Your task to perform on an android device: Search for the best 100% cotton t-shirts Image 0: 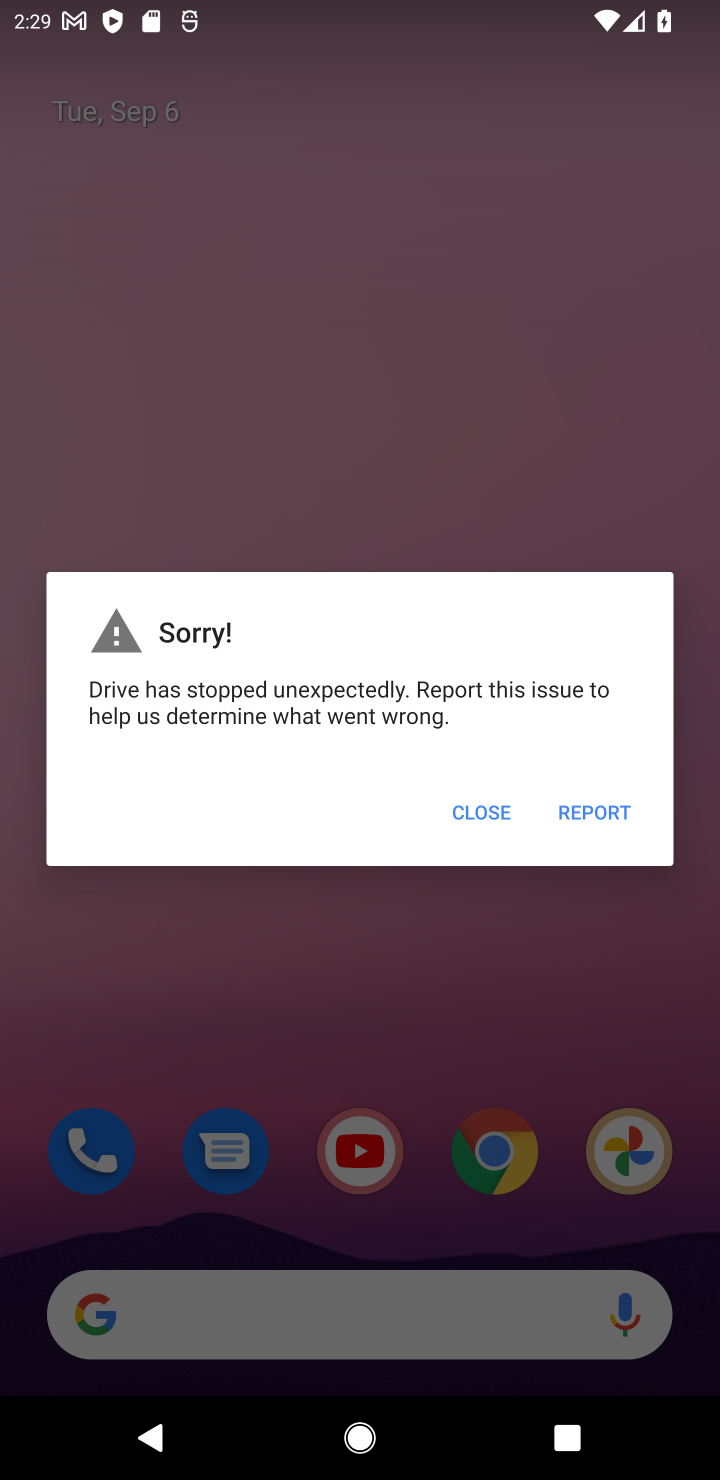
Step 0: click (475, 1137)
Your task to perform on an android device: Search for the best 100% cotton t-shirts Image 1: 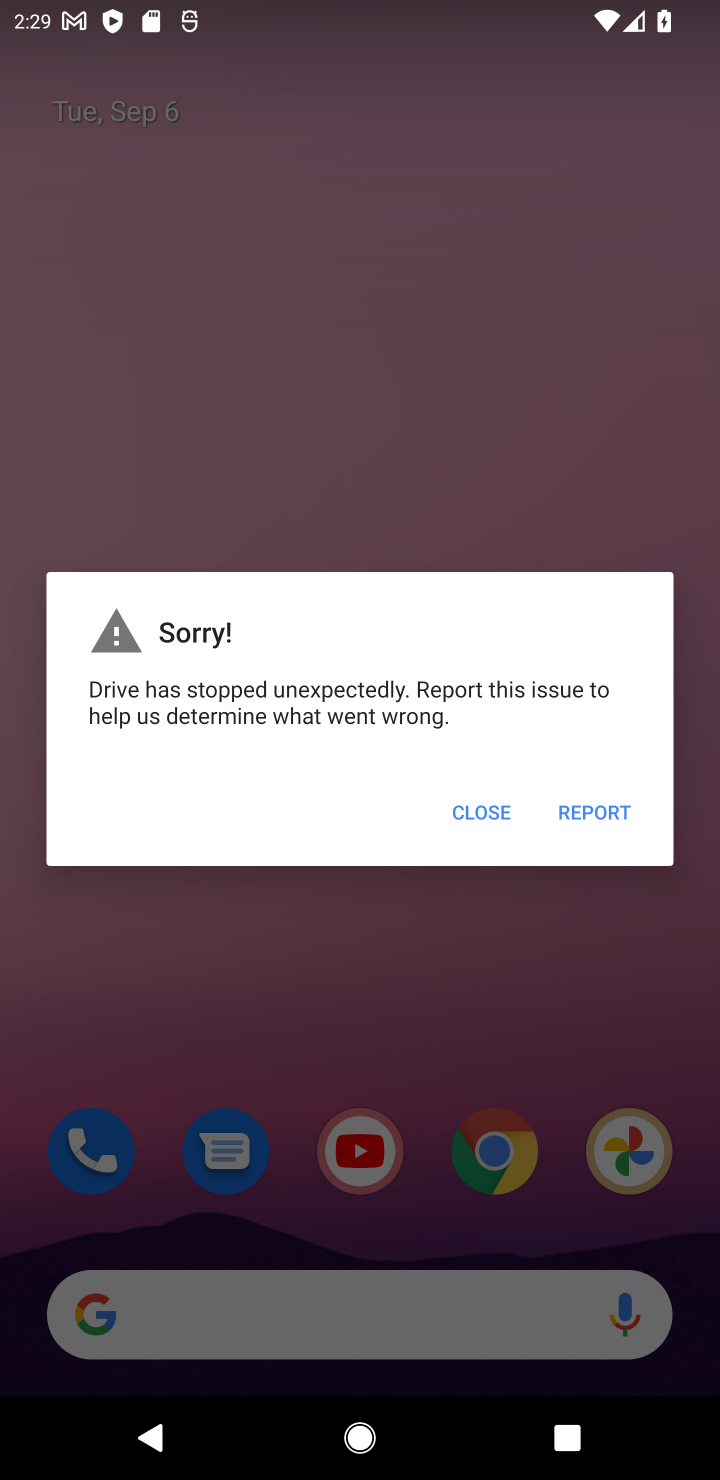
Step 1: click (475, 804)
Your task to perform on an android device: Search for the best 100% cotton t-shirts Image 2: 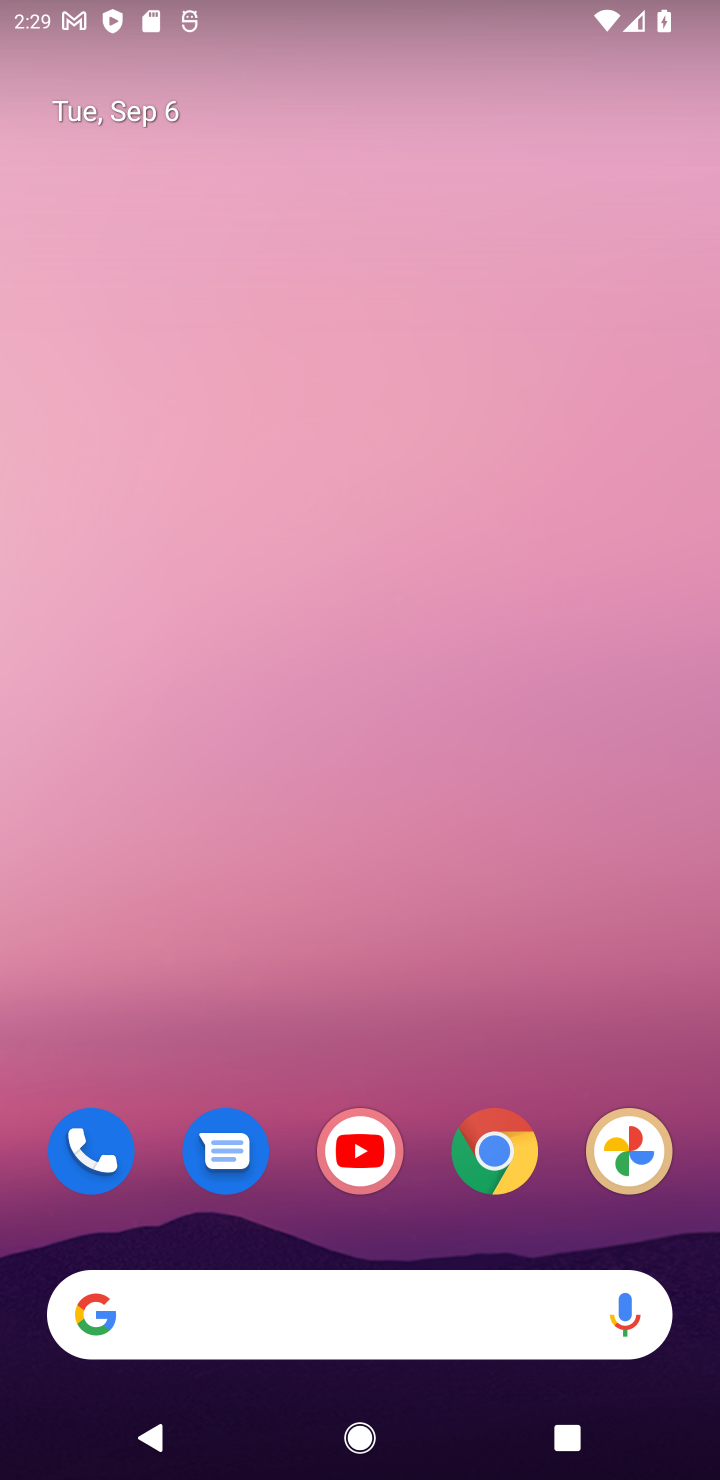
Step 2: click (501, 1164)
Your task to perform on an android device: Search for the best 100% cotton t-shirts Image 3: 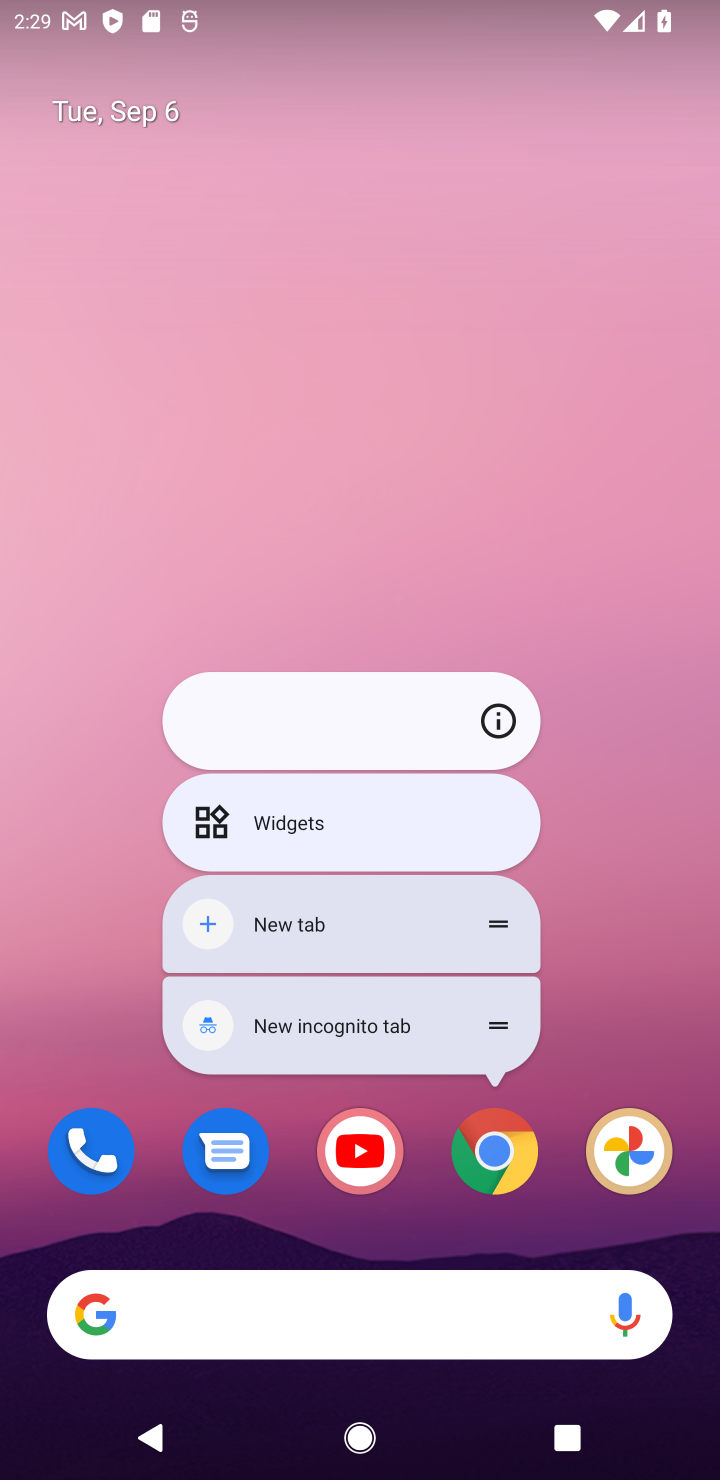
Step 3: click (501, 1164)
Your task to perform on an android device: Search for the best 100% cotton t-shirts Image 4: 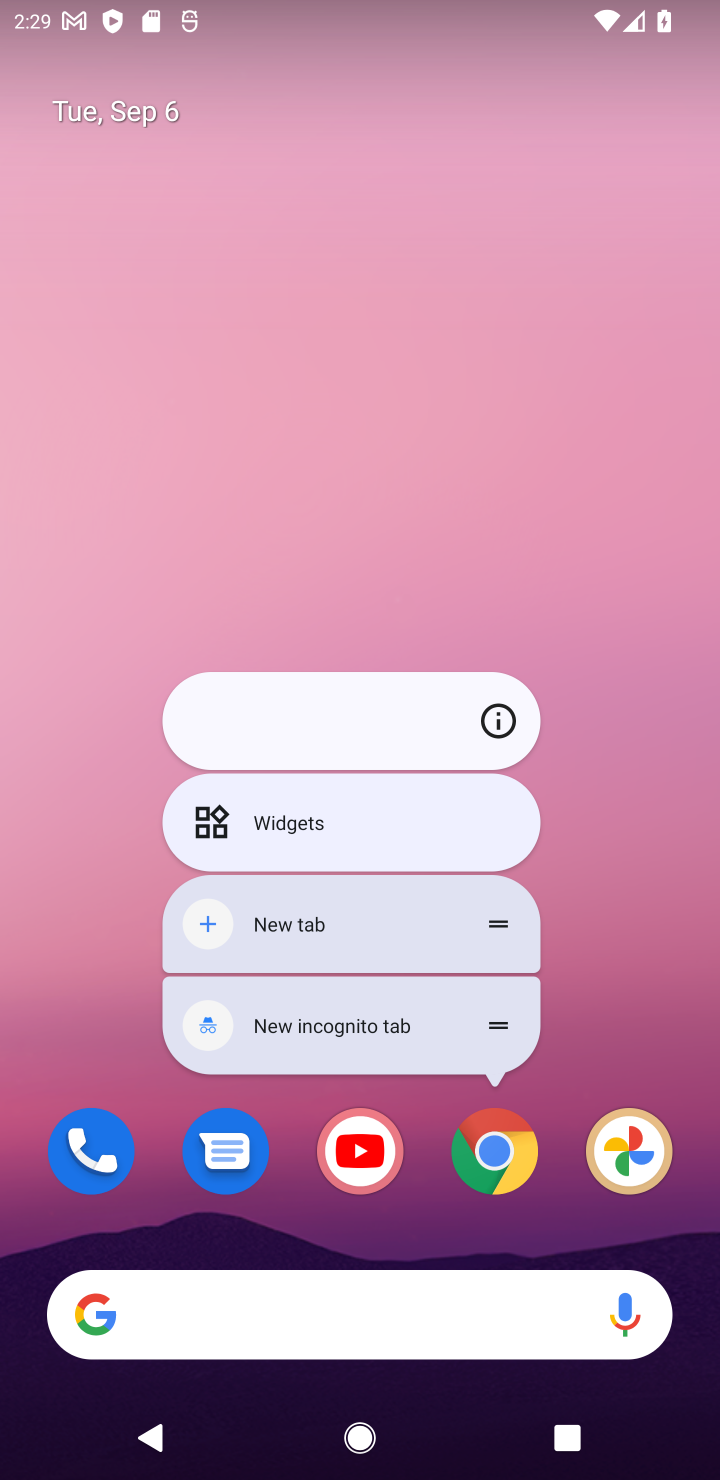
Step 4: drag from (643, 957) to (502, 1170)
Your task to perform on an android device: Search for the best 100% cotton t-shirts Image 5: 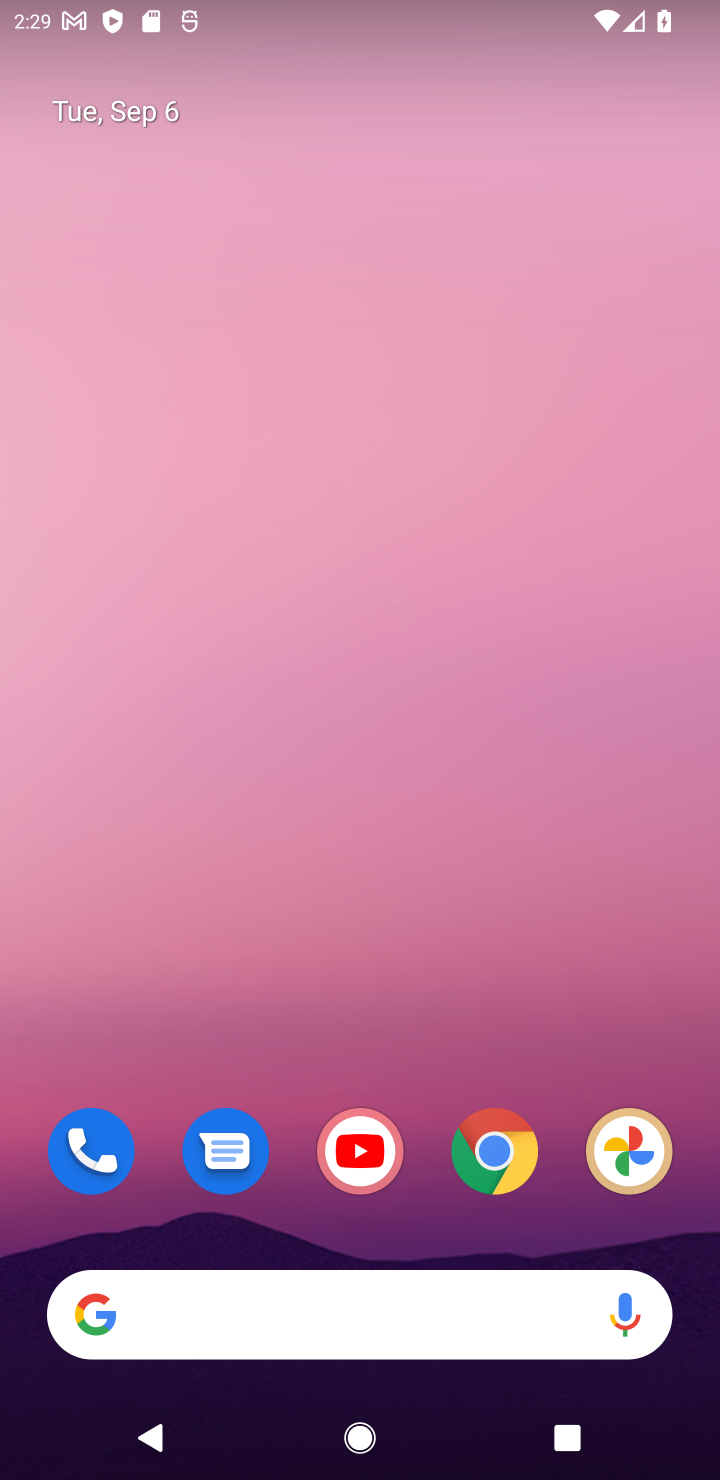
Step 5: click (504, 1152)
Your task to perform on an android device: Search for the best 100% cotton t-shirts Image 6: 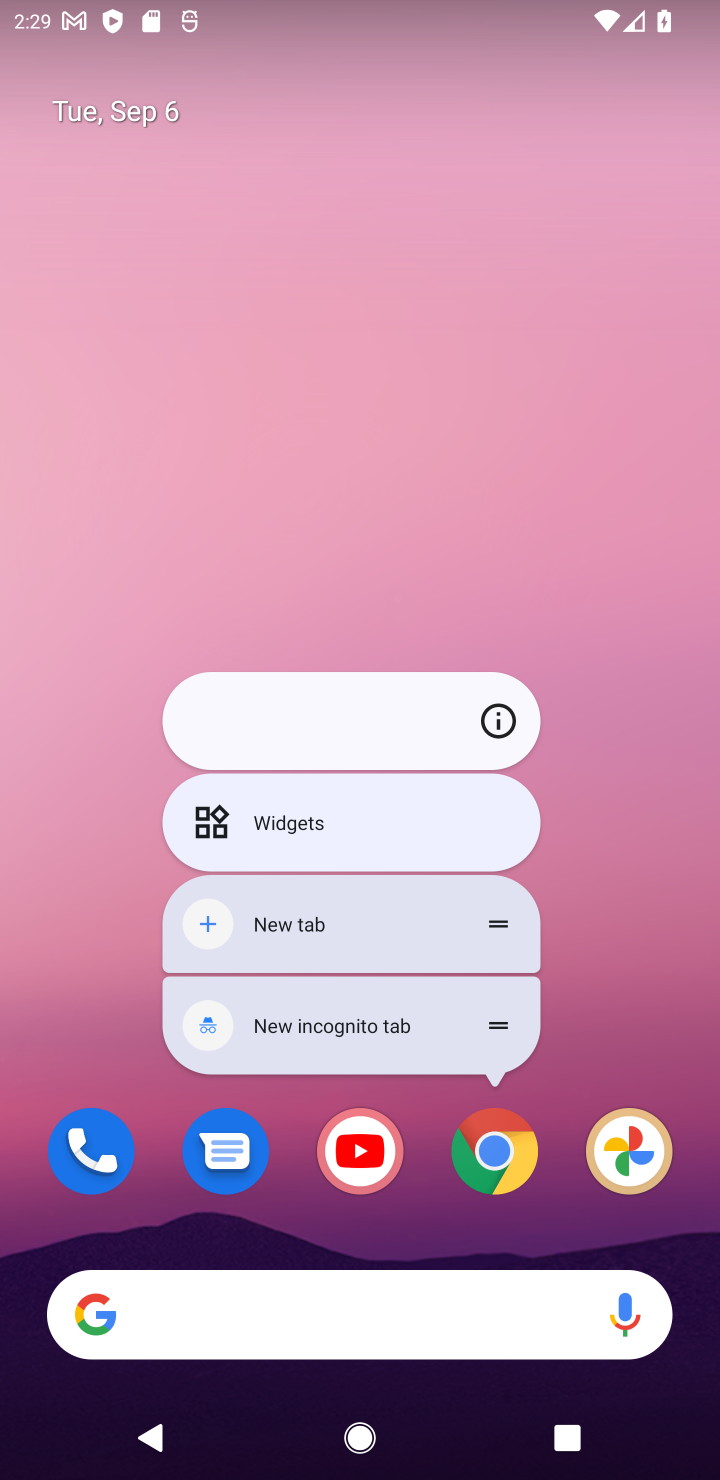
Step 6: click (203, 919)
Your task to perform on an android device: Search for the best 100% cotton t-shirts Image 7: 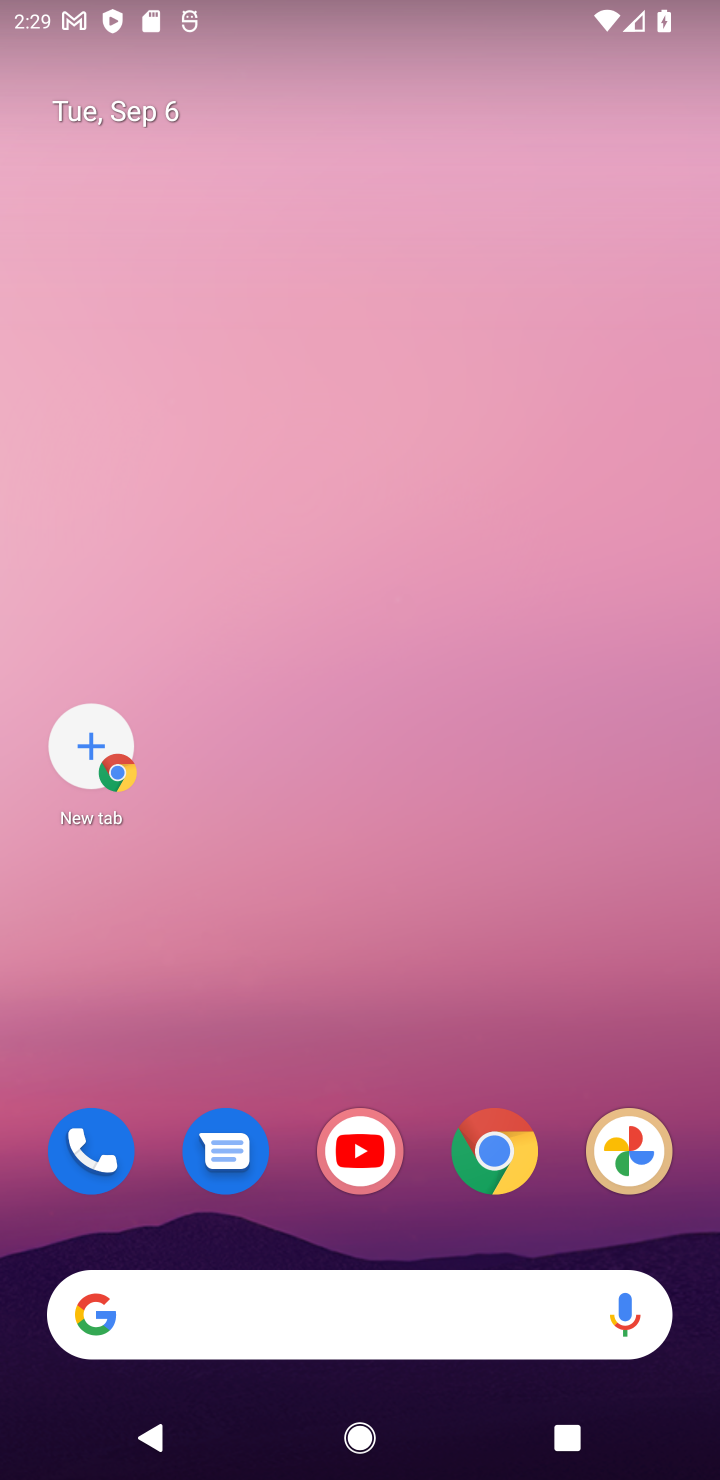
Step 7: click (488, 1153)
Your task to perform on an android device: Search for the best 100% cotton t-shirts Image 8: 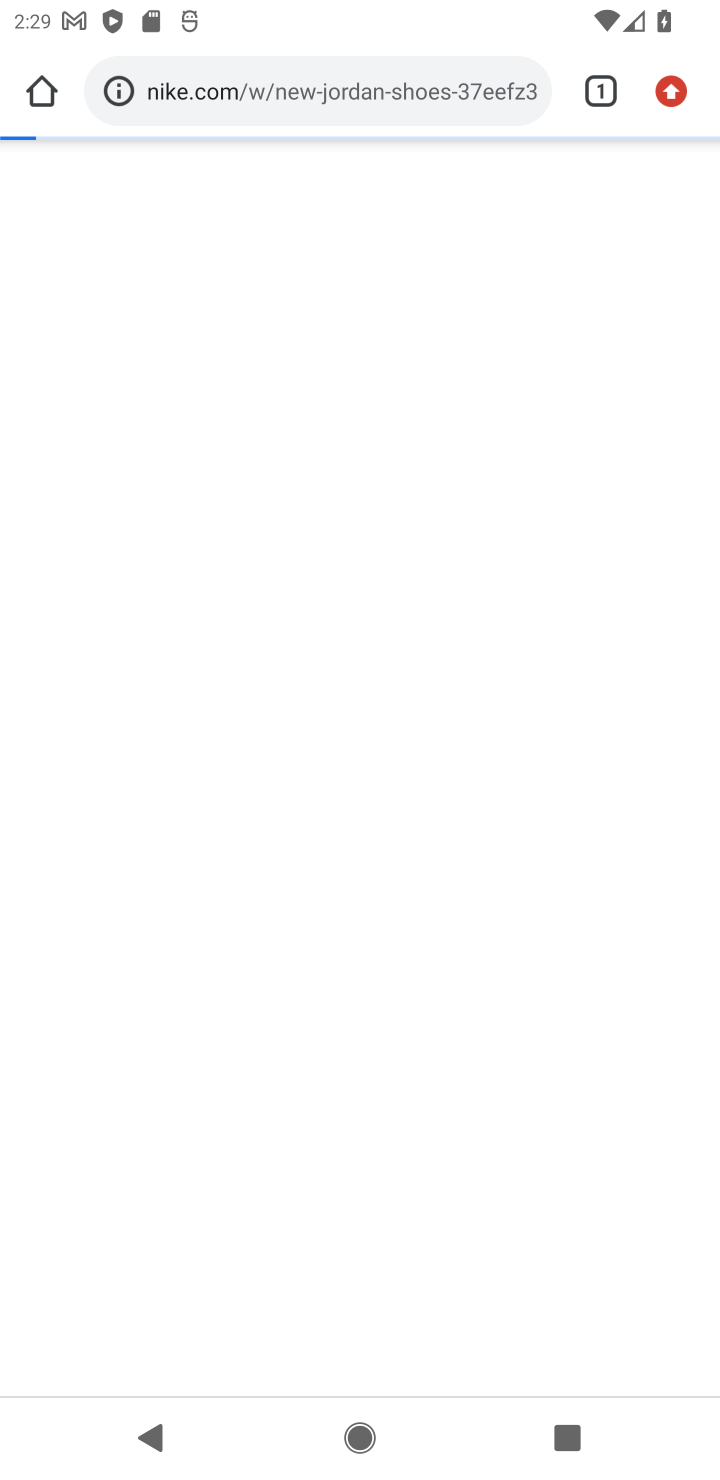
Step 8: click (175, 83)
Your task to perform on an android device: Search for the best 100% cotton t-shirts Image 9: 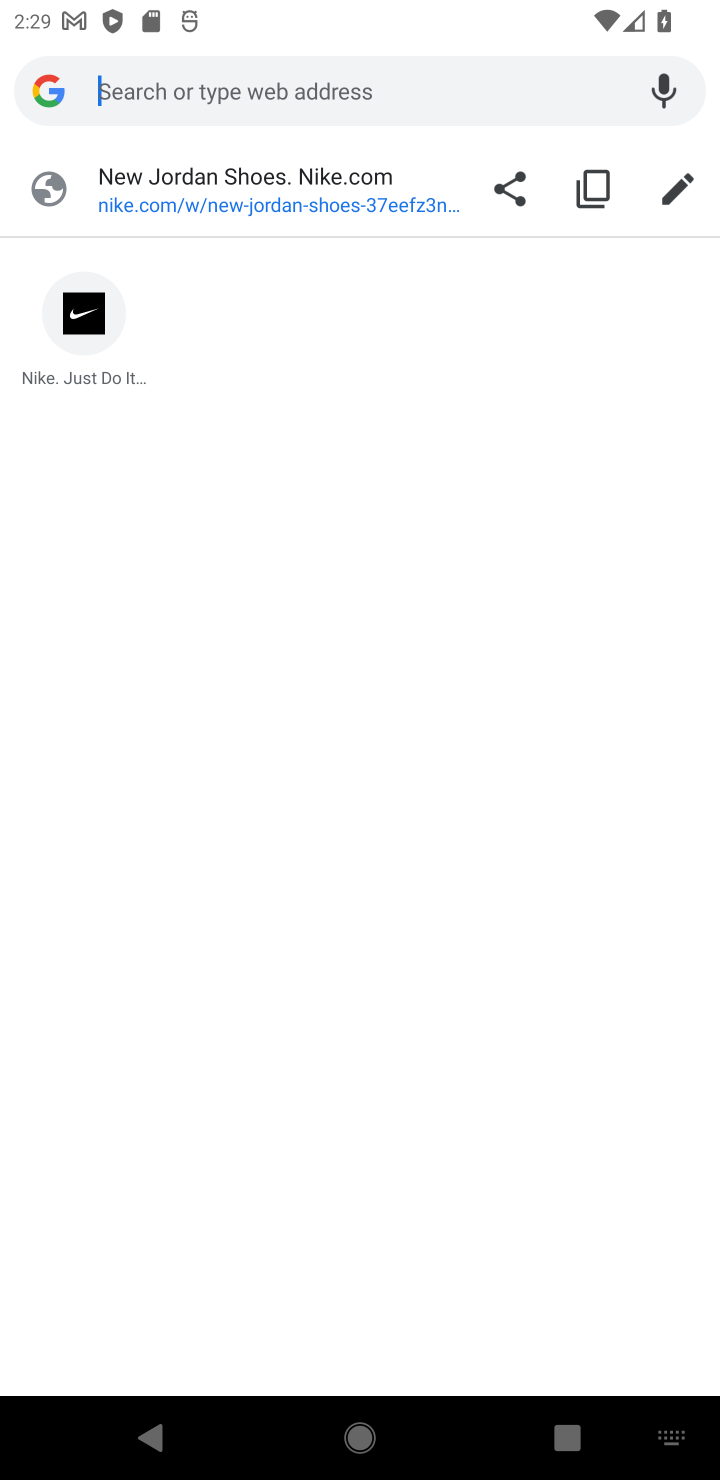
Step 9: type "100% cotton t-shirts"
Your task to perform on an android device: Search for the best 100% cotton t-shirts Image 10: 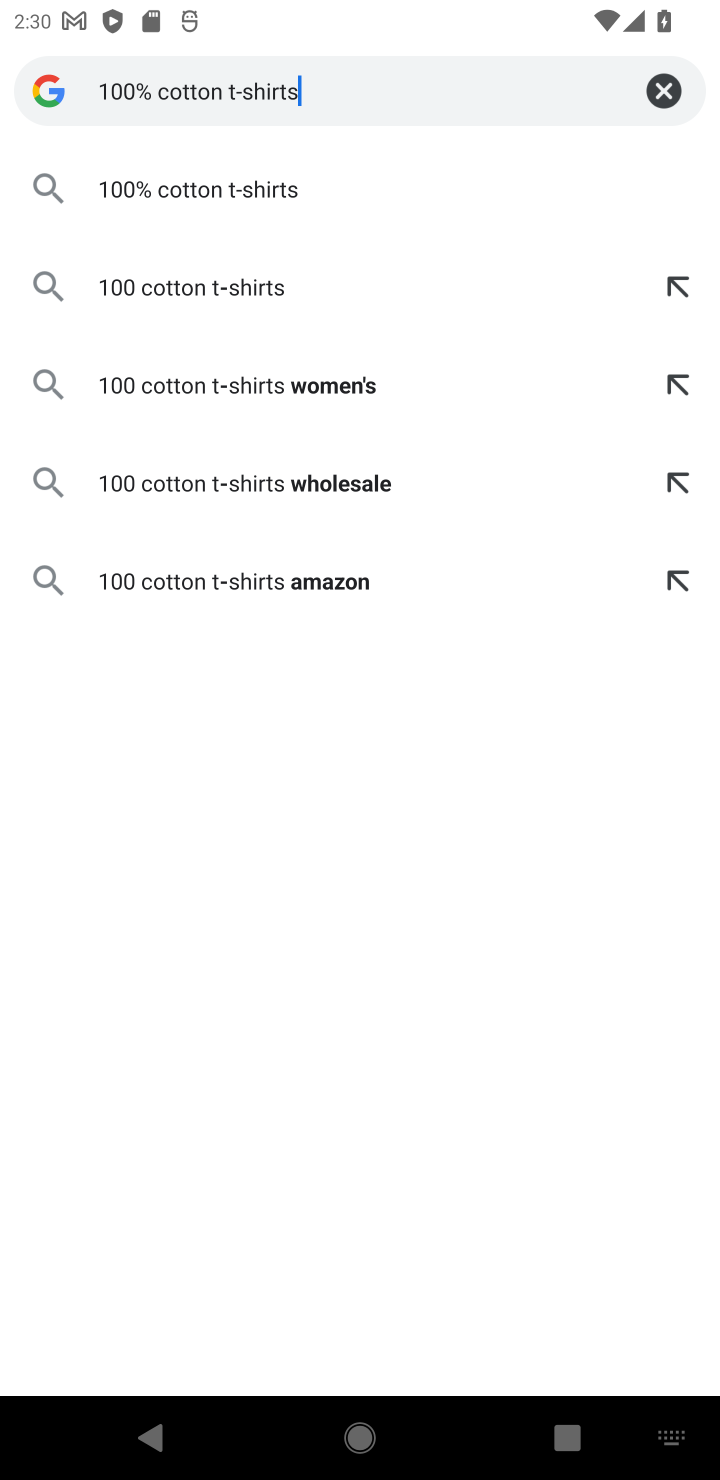
Step 10: click (205, 201)
Your task to perform on an android device: Search for the best 100% cotton t-shirts Image 11: 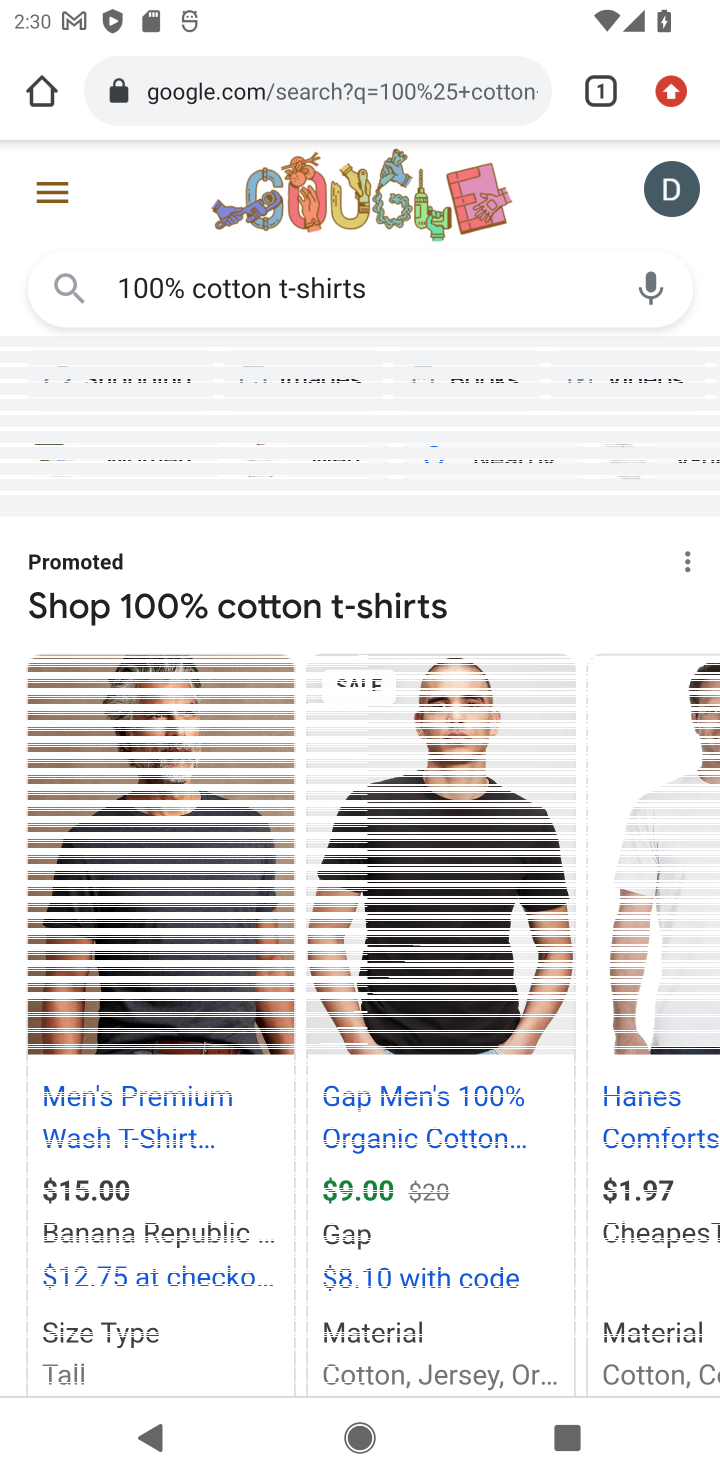
Step 11: drag from (535, 937) to (560, 341)
Your task to perform on an android device: Search for the best 100% cotton t-shirts Image 12: 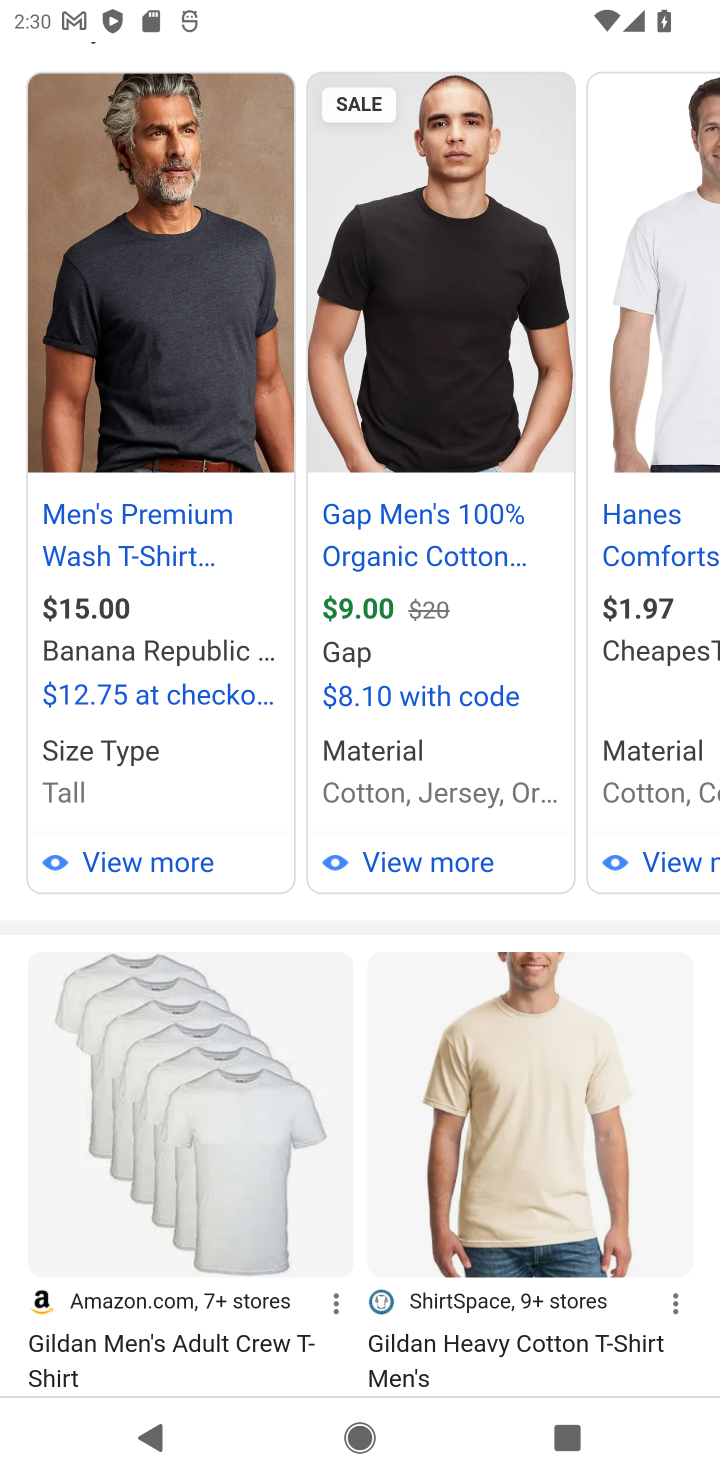
Step 12: drag from (579, 700) to (647, 434)
Your task to perform on an android device: Search for the best 100% cotton t-shirts Image 13: 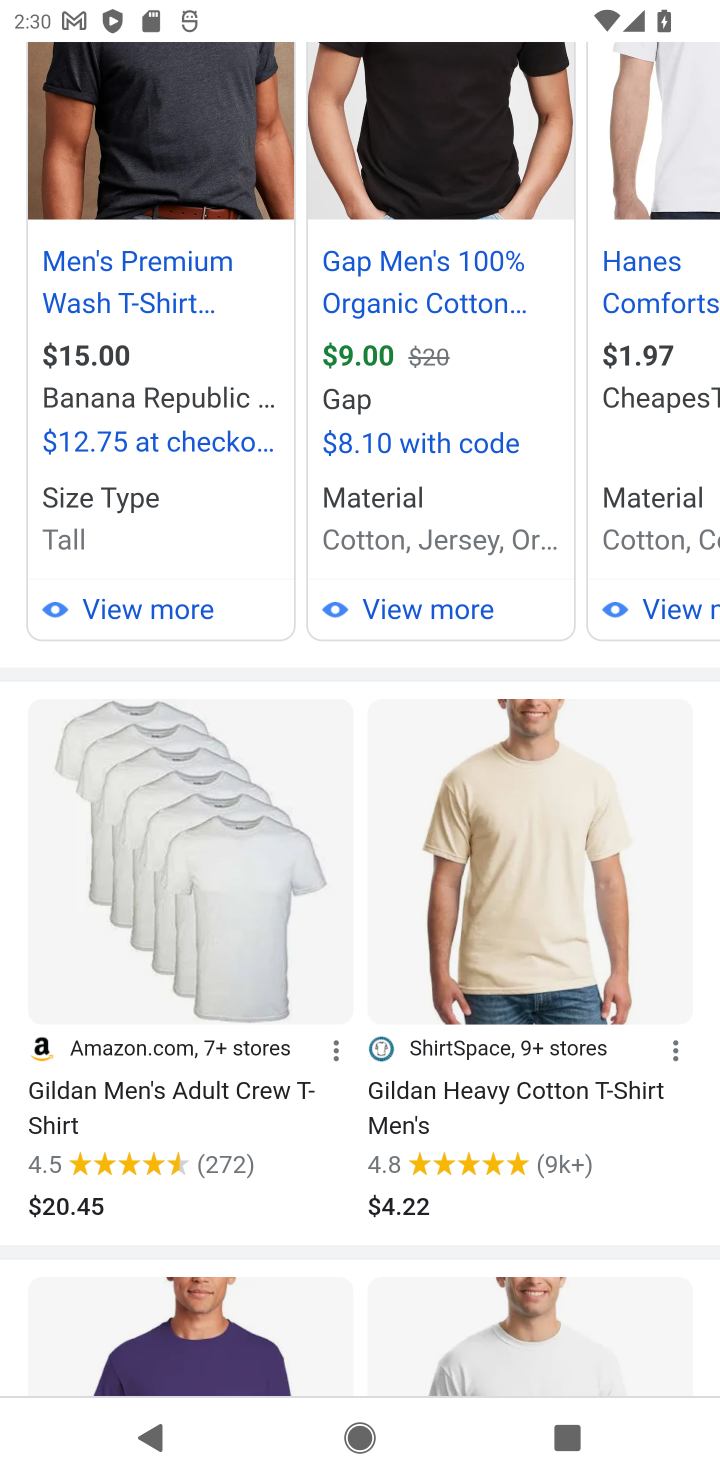
Step 13: drag from (389, 792) to (453, 380)
Your task to perform on an android device: Search for the best 100% cotton t-shirts Image 14: 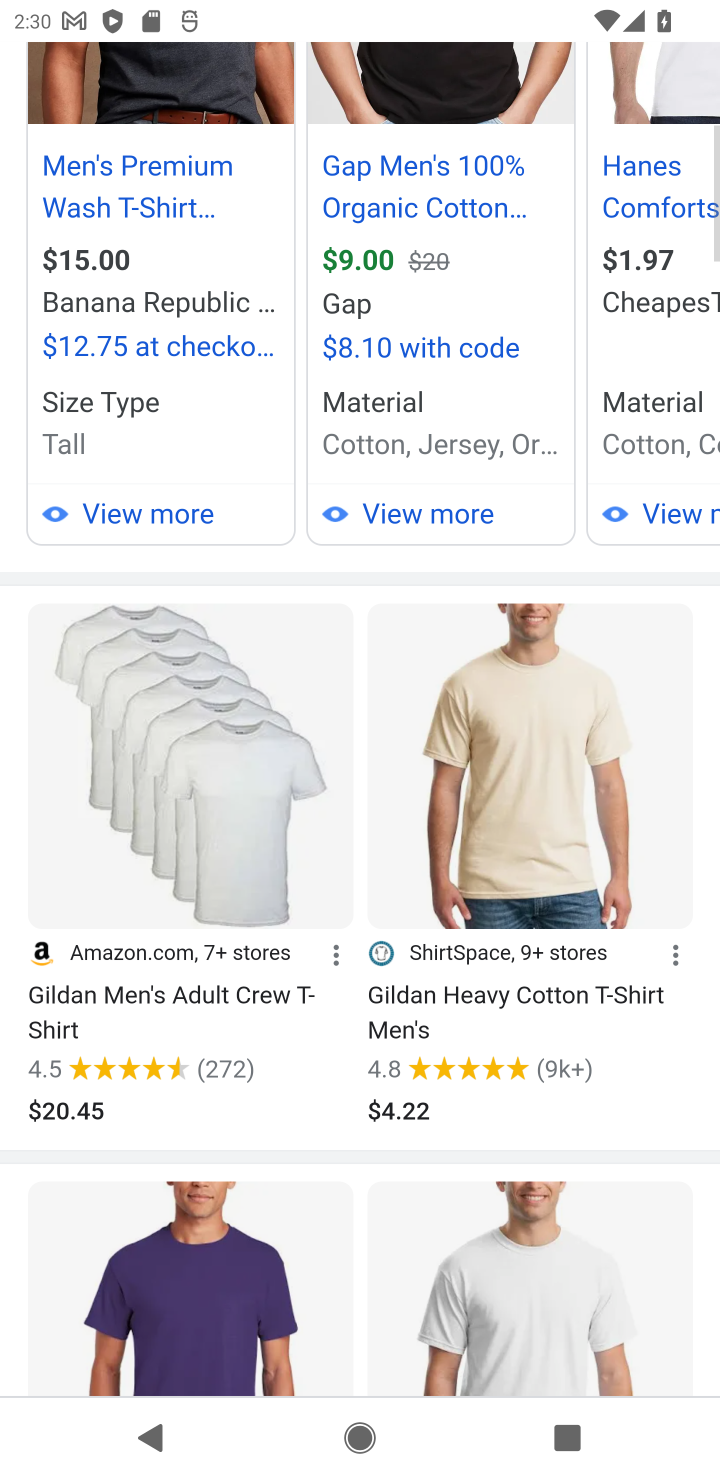
Step 14: drag from (585, 994) to (663, 481)
Your task to perform on an android device: Search for the best 100% cotton t-shirts Image 15: 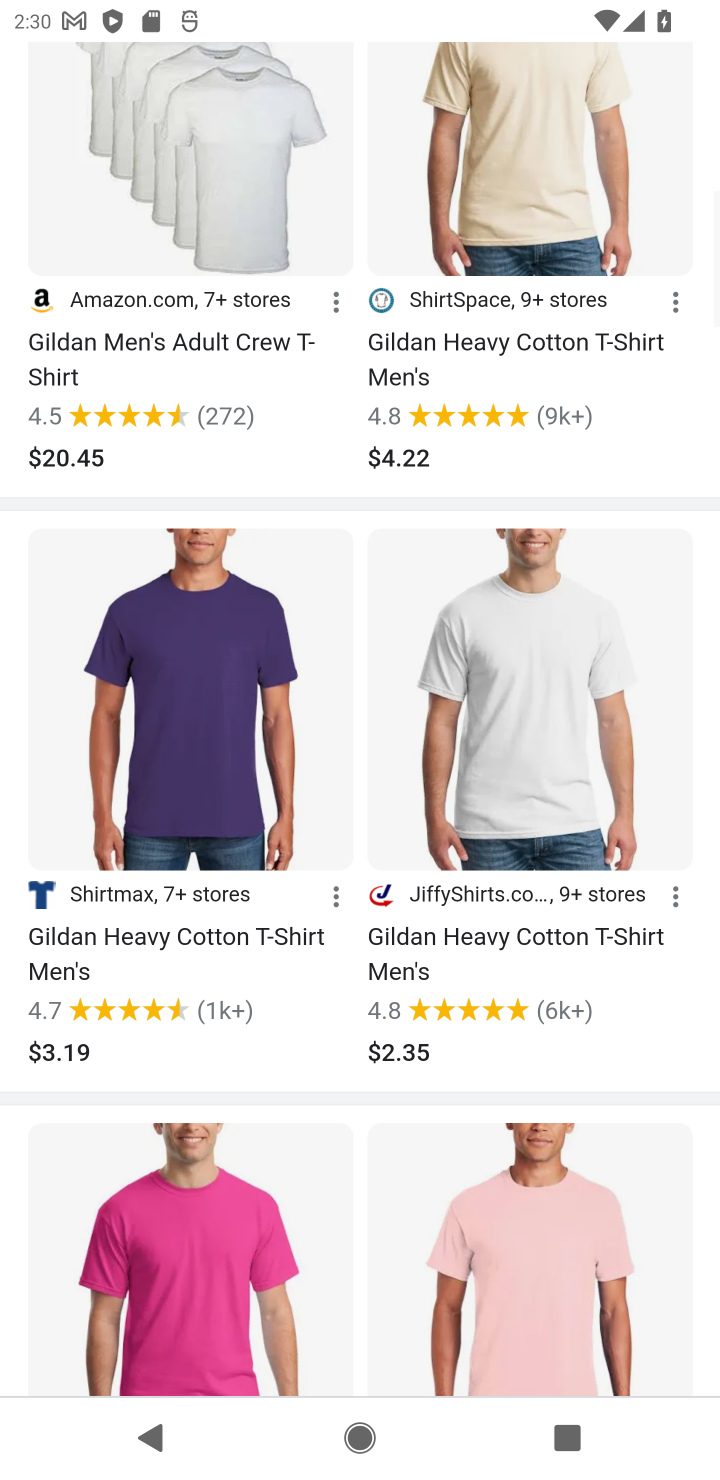
Step 15: drag from (399, 1169) to (532, 624)
Your task to perform on an android device: Search for the best 100% cotton t-shirts Image 16: 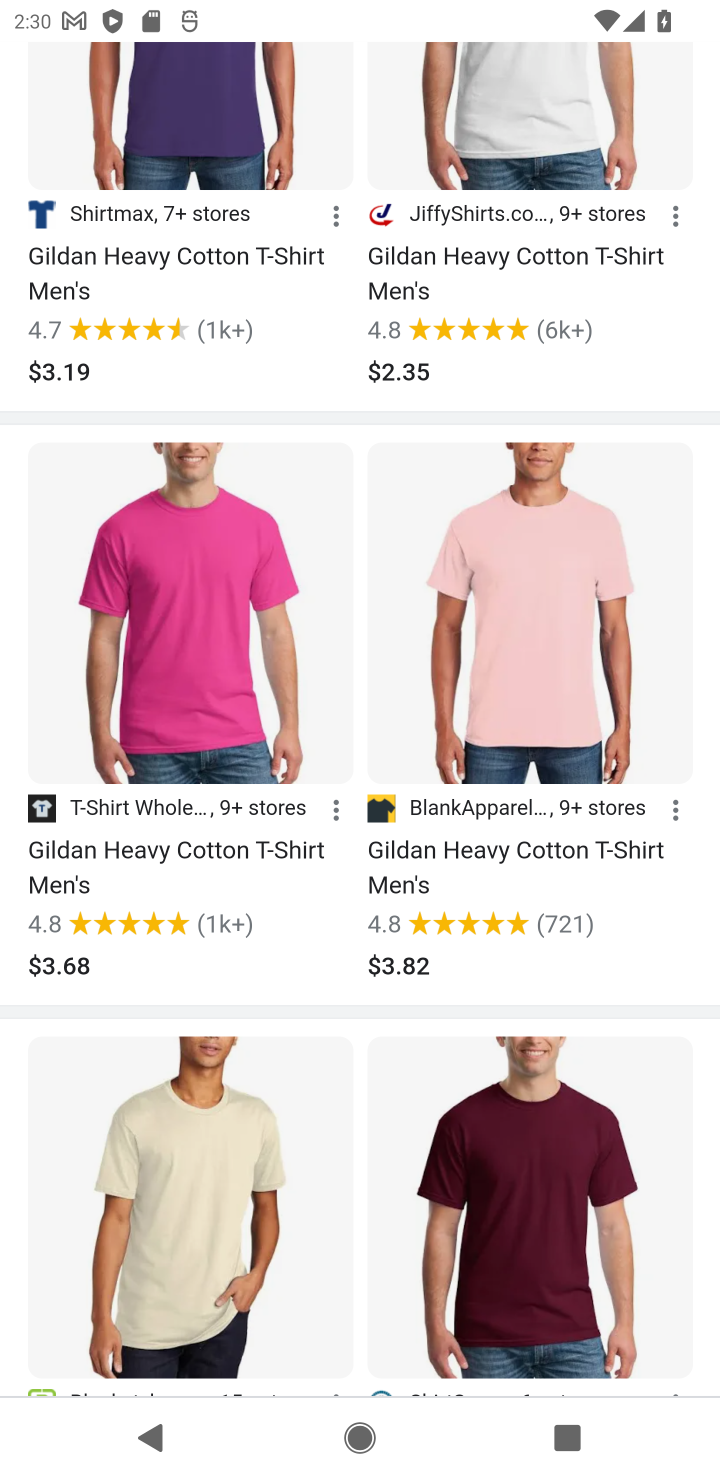
Step 16: click (179, 594)
Your task to perform on an android device: Search for the best 100% cotton t-shirts Image 17: 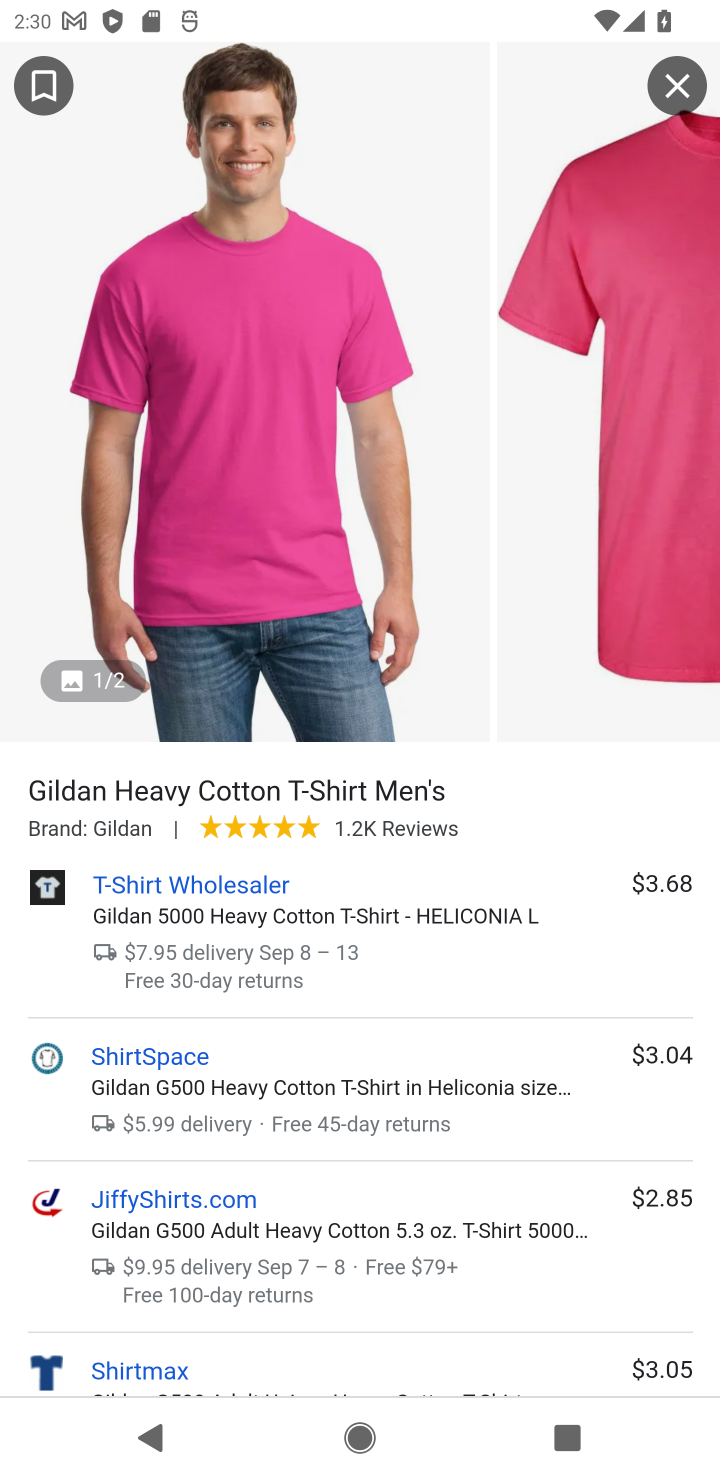
Step 17: task complete